Your task to perform on an android device: Open eBay Image 0: 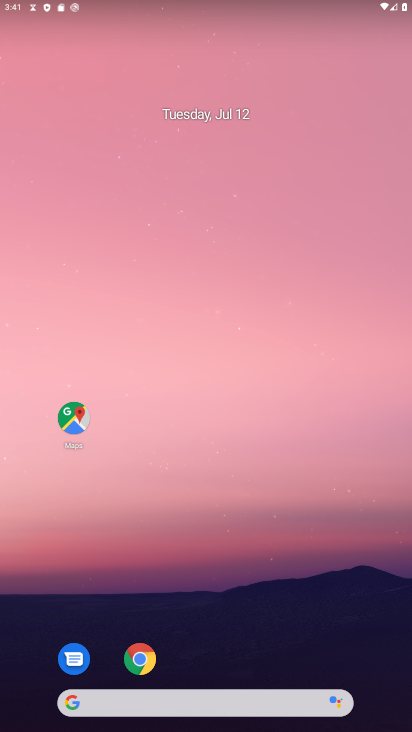
Step 0: click (263, 704)
Your task to perform on an android device: Open eBay Image 1: 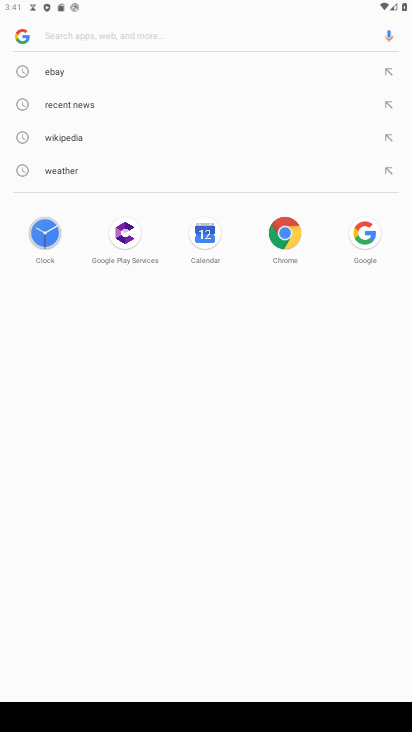
Step 1: click (50, 72)
Your task to perform on an android device: Open eBay Image 2: 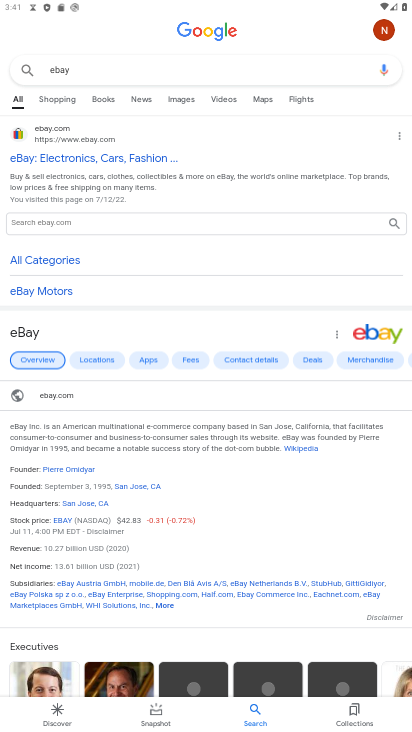
Step 2: click (50, 128)
Your task to perform on an android device: Open eBay Image 3: 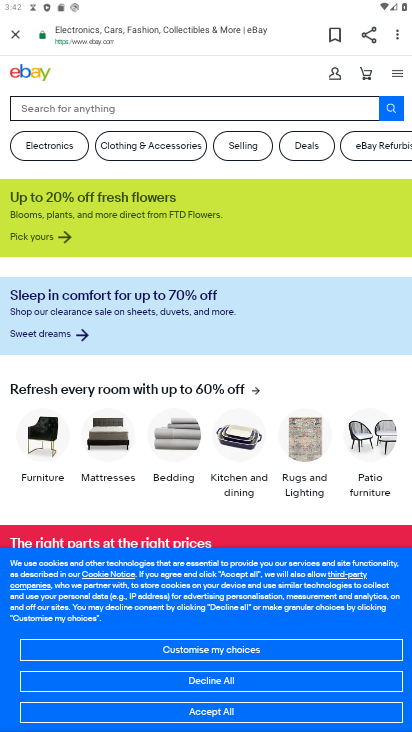
Step 3: task complete